Your task to perform on an android device: toggle airplane mode Image 0: 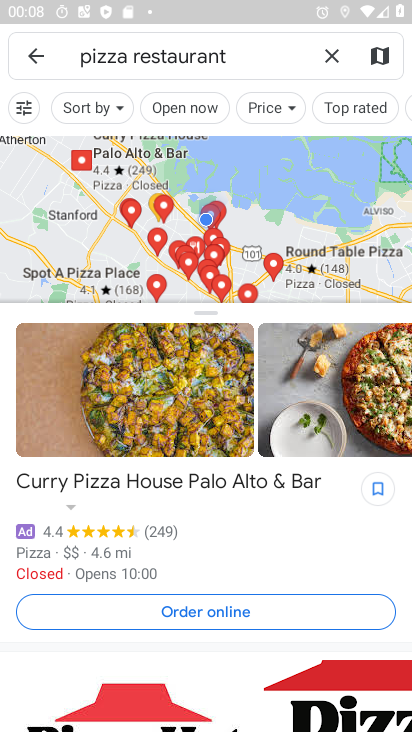
Step 0: press home button
Your task to perform on an android device: toggle airplane mode Image 1: 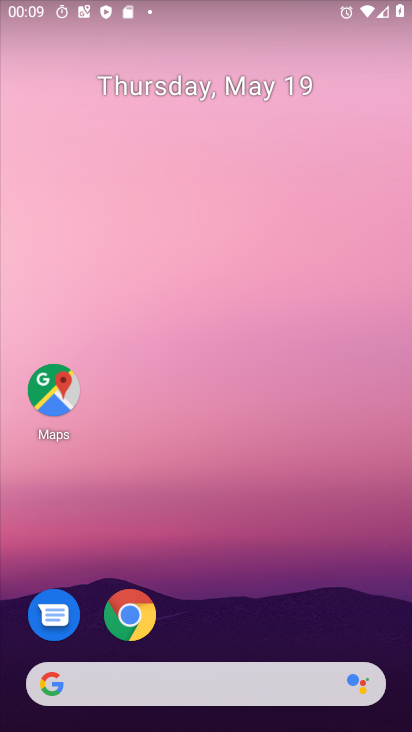
Step 1: drag from (277, 20) to (266, 457)
Your task to perform on an android device: toggle airplane mode Image 2: 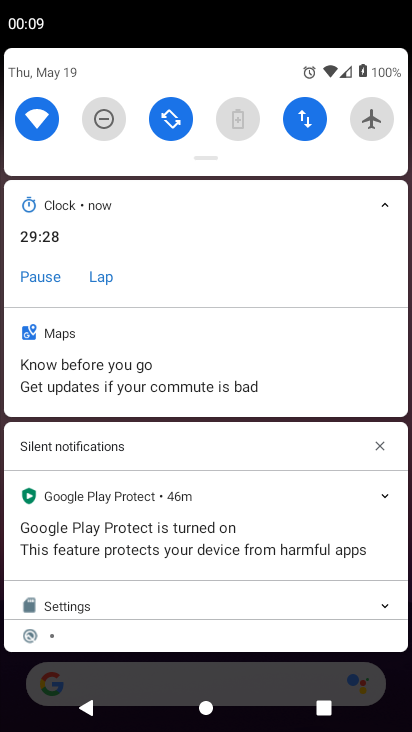
Step 2: click (368, 126)
Your task to perform on an android device: toggle airplane mode Image 3: 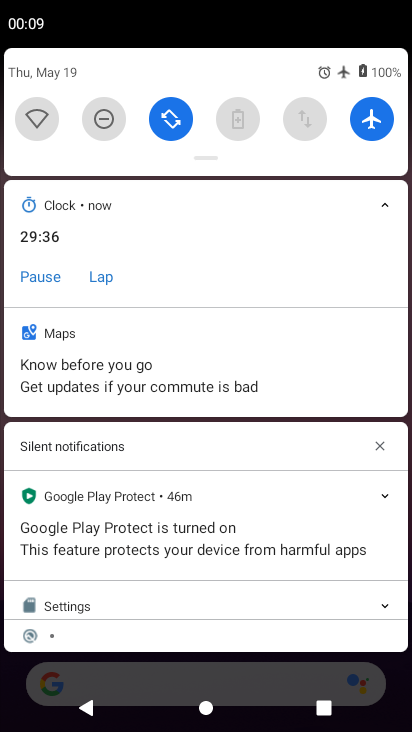
Step 3: task complete